Your task to perform on an android device: turn on data saver in the chrome app Image 0: 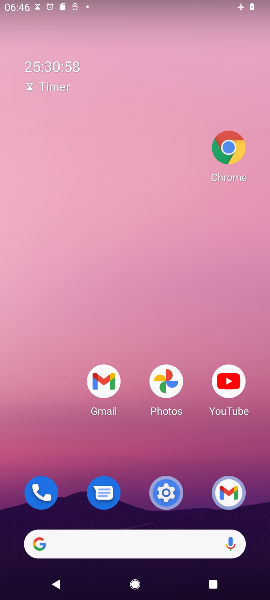
Step 0: press home button
Your task to perform on an android device: turn on data saver in the chrome app Image 1: 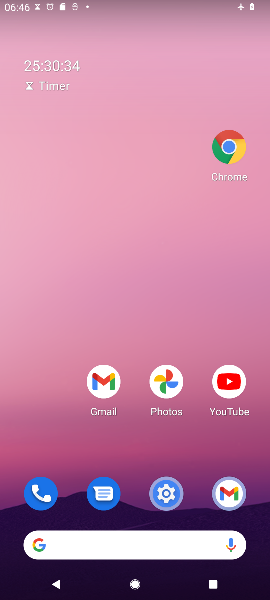
Step 1: click (239, 144)
Your task to perform on an android device: turn on data saver in the chrome app Image 2: 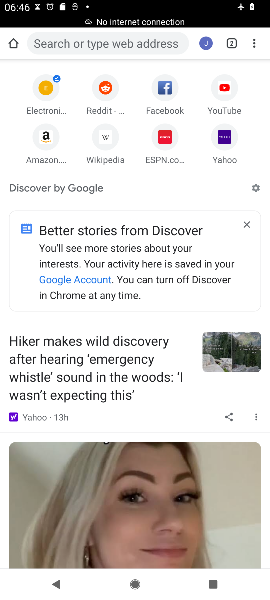
Step 2: drag from (260, 42) to (168, 328)
Your task to perform on an android device: turn on data saver in the chrome app Image 3: 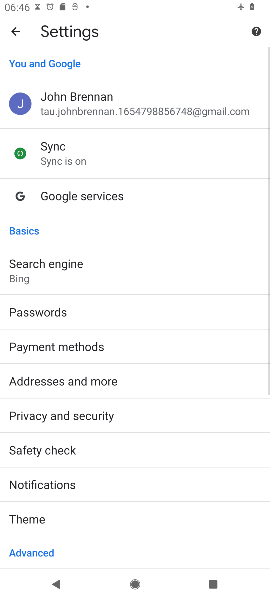
Step 3: drag from (121, 527) to (161, 115)
Your task to perform on an android device: turn on data saver in the chrome app Image 4: 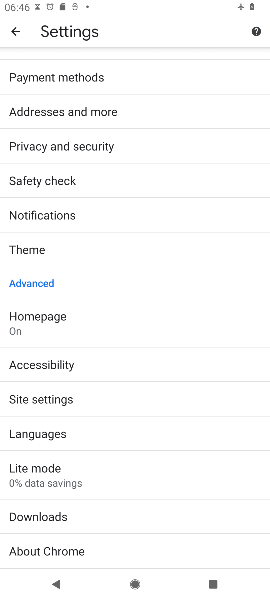
Step 4: click (36, 471)
Your task to perform on an android device: turn on data saver in the chrome app Image 5: 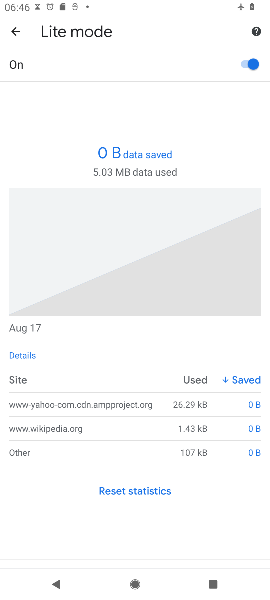
Step 5: task complete